Your task to perform on an android device: Open calendar and show me the third week of next month Image 0: 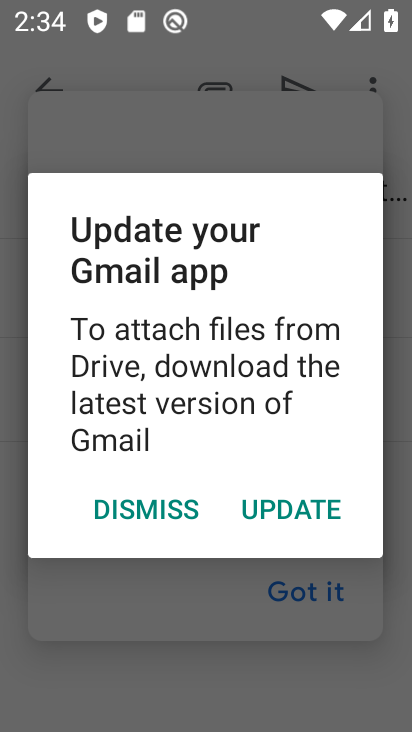
Step 0: press home button
Your task to perform on an android device: Open calendar and show me the third week of next month Image 1: 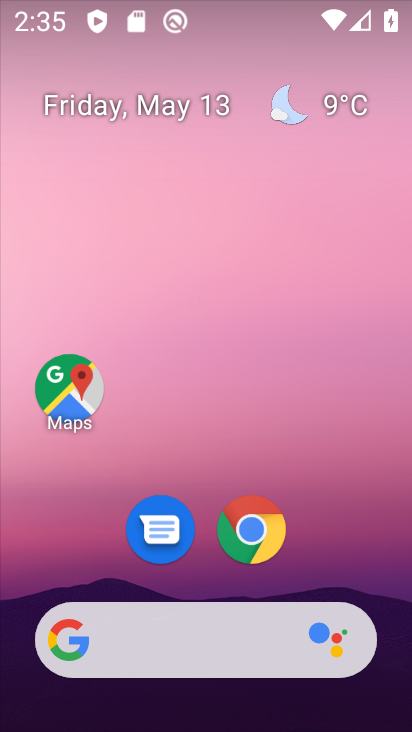
Step 1: drag from (141, 592) to (308, 25)
Your task to perform on an android device: Open calendar and show me the third week of next month Image 2: 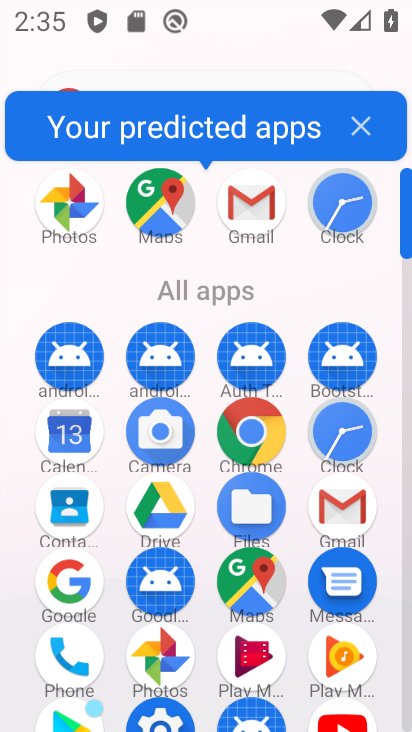
Step 2: click (68, 524)
Your task to perform on an android device: Open calendar and show me the third week of next month Image 3: 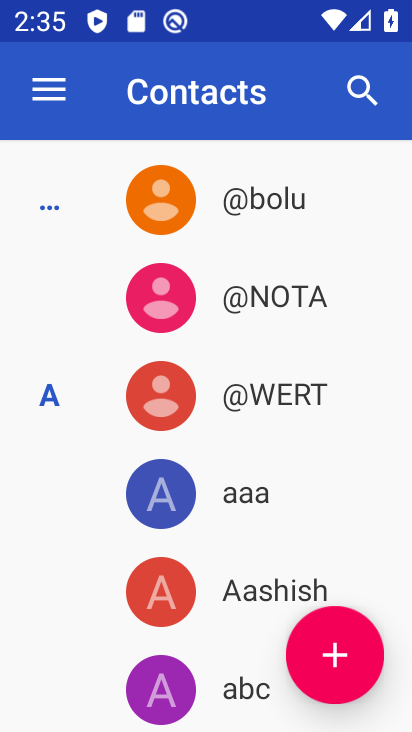
Step 3: press back button
Your task to perform on an android device: Open calendar and show me the third week of next month Image 4: 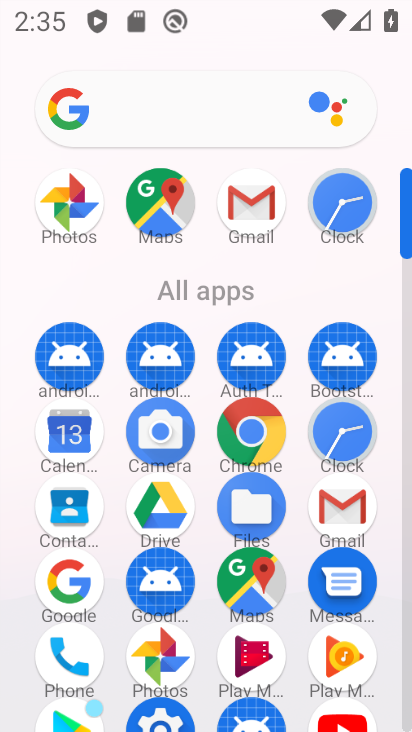
Step 4: click (63, 431)
Your task to perform on an android device: Open calendar and show me the third week of next month Image 5: 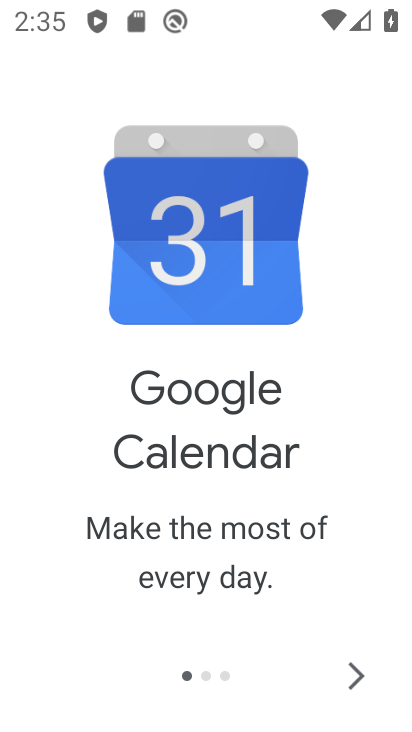
Step 5: click (375, 679)
Your task to perform on an android device: Open calendar and show me the third week of next month Image 6: 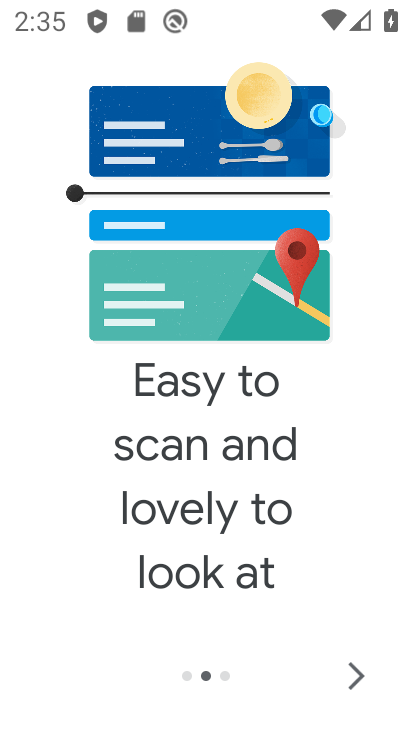
Step 6: click (374, 678)
Your task to perform on an android device: Open calendar and show me the third week of next month Image 7: 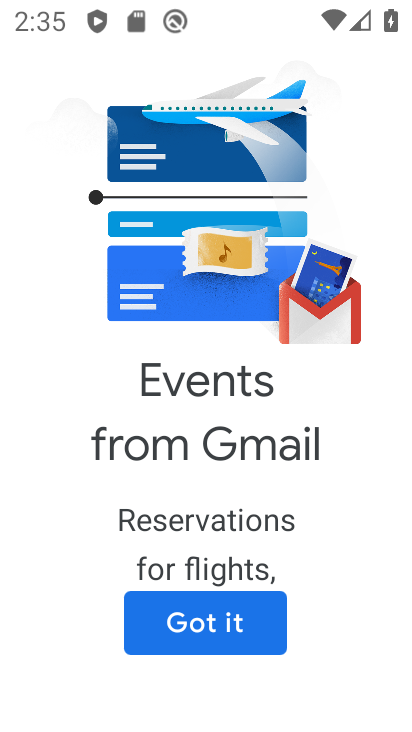
Step 7: click (272, 637)
Your task to perform on an android device: Open calendar and show me the third week of next month Image 8: 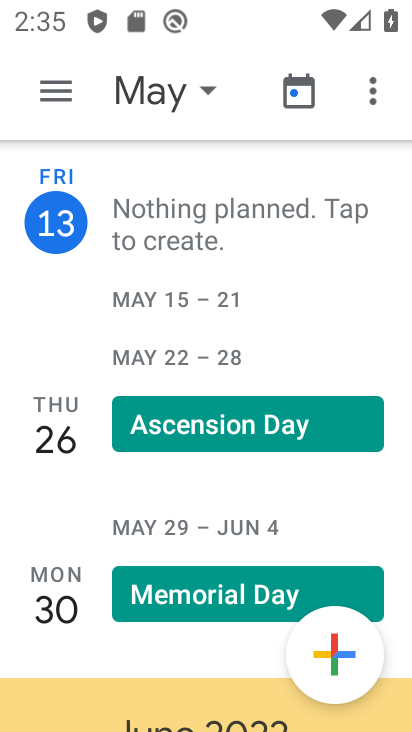
Step 8: click (93, 106)
Your task to perform on an android device: Open calendar and show me the third week of next month Image 9: 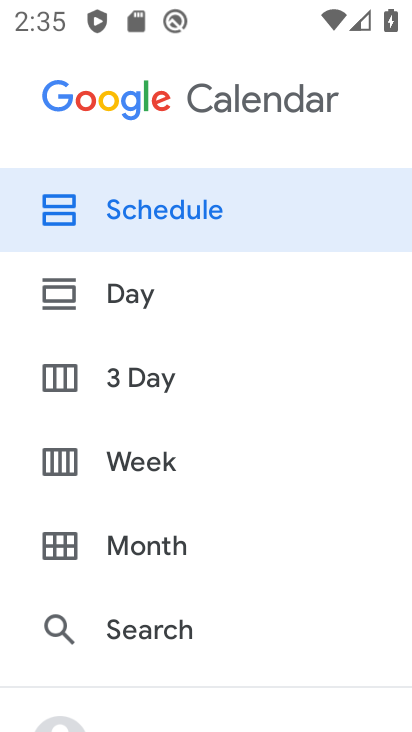
Step 9: click (204, 450)
Your task to perform on an android device: Open calendar and show me the third week of next month Image 10: 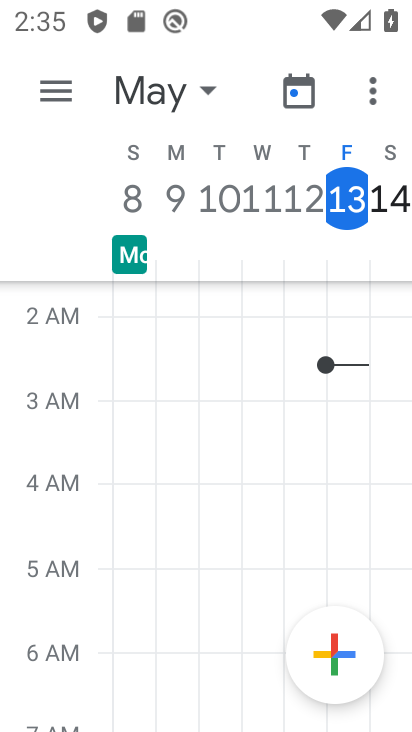
Step 10: click (169, 130)
Your task to perform on an android device: Open calendar and show me the third week of next month Image 11: 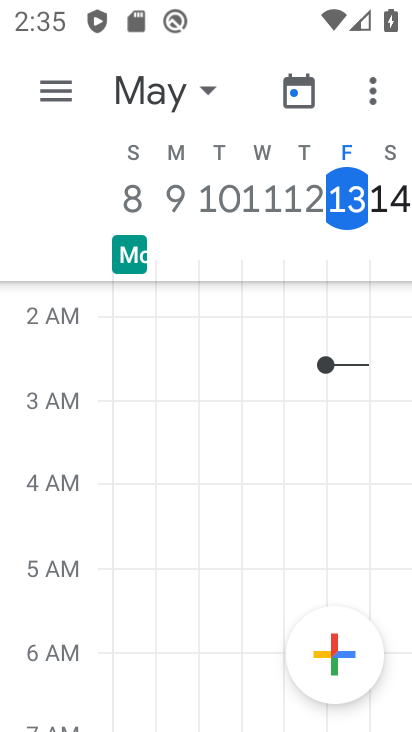
Step 11: click (178, 104)
Your task to perform on an android device: Open calendar and show me the third week of next month Image 12: 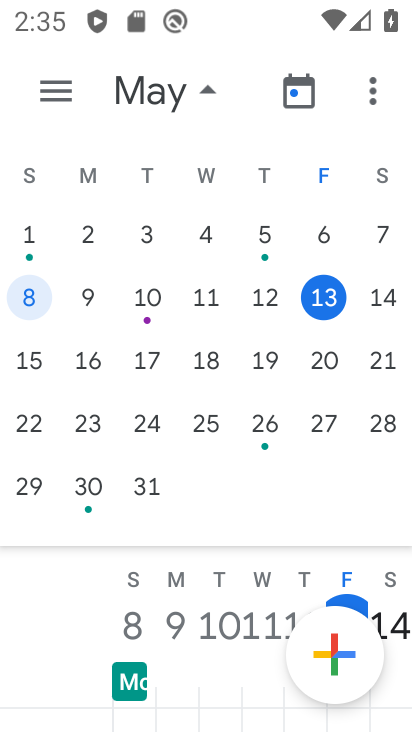
Step 12: drag from (349, 501) to (28, 462)
Your task to perform on an android device: Open calendar and show me the third week of next month Image 13: 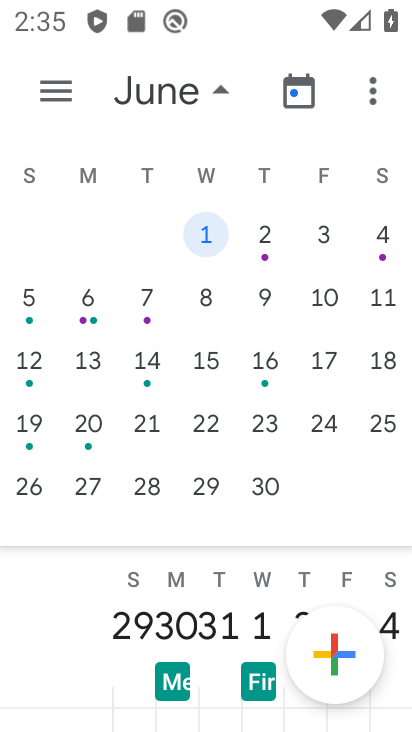
Step 13: click (25, 423)
Your task to perform on an android device: Open calendar and show me the third week of next month Image 14: 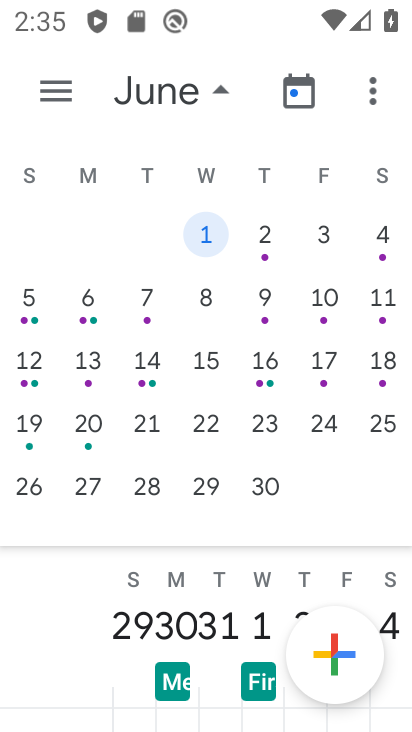
Step 14: click (43, 427)
Your task to perform on an android device: Open calendar and show me the third week of next month Image 15: 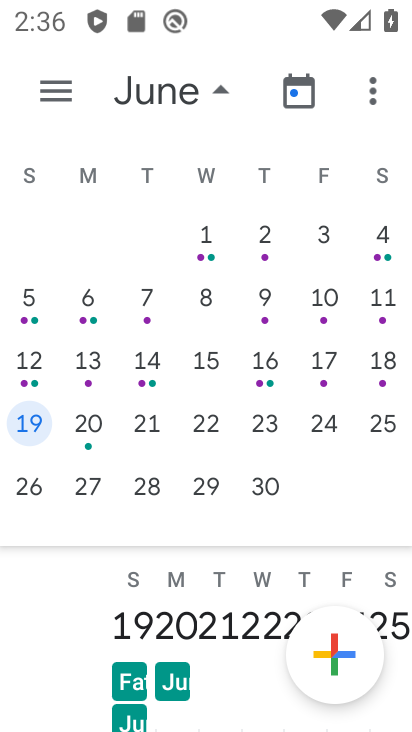
Step 15: click (190, 94)
Your task to perform on an android device: Open calendar and show me the third week of next month Image 16: 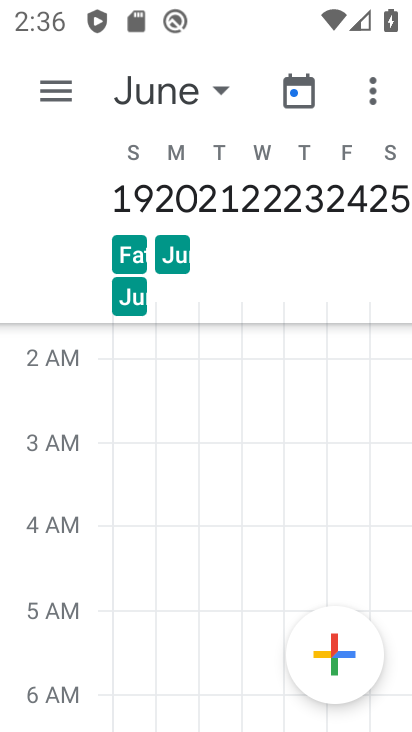
Step 16: task complete